Your task to perform on an android device: Open Chrome and go to settings Image 0: 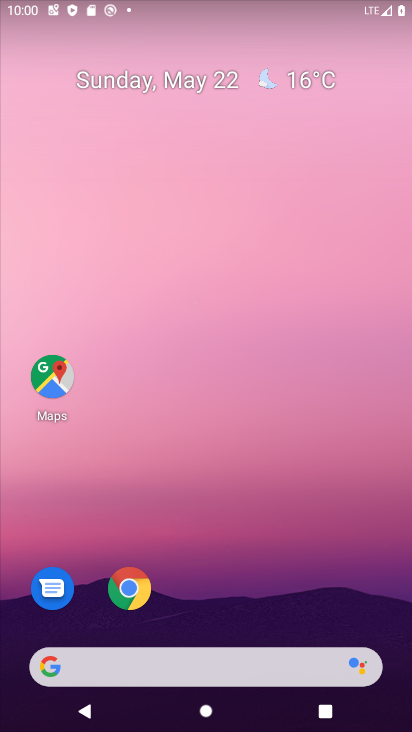
Step 0: drag from (237, 609) to (230, 213)
Your task to perform on an android device: Open Chrome and go to settings Image 1: 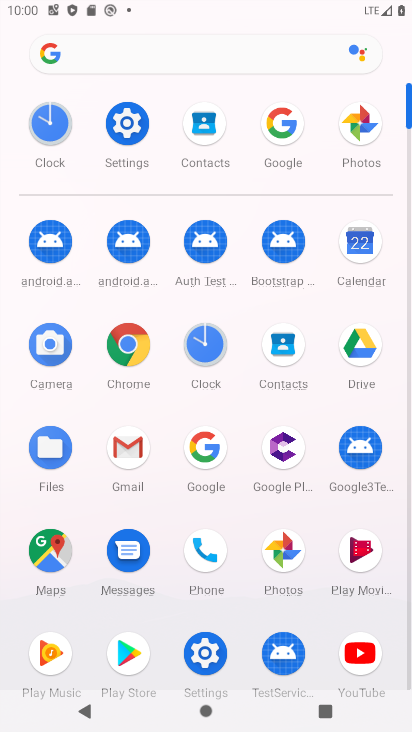
Step 1: click (131, 367)
Your task to perform on an android device: Open Chrome and go to settings Image 2: 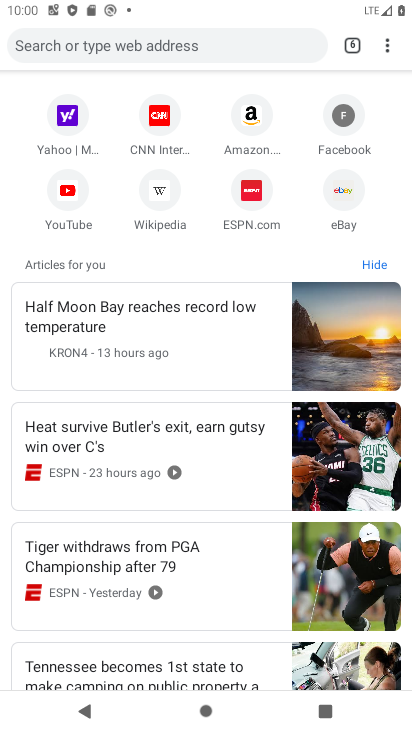
Step 2: click (386, 50)
Your task to perform on an android device: Open Chrome and go to settings Image 3: 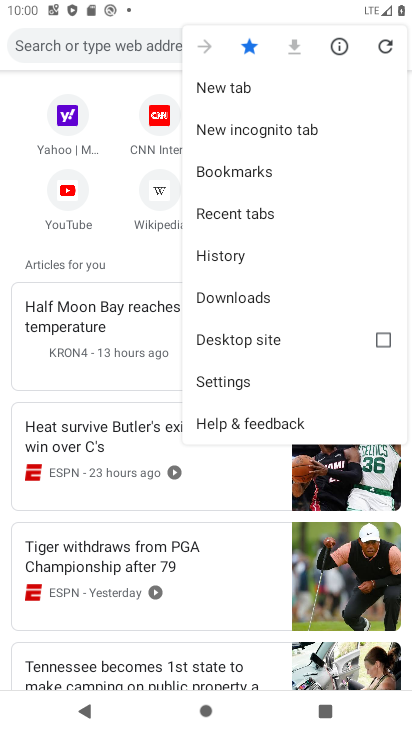
Step 3: click (219, 367)
Your task to perform on an android device: Open Chrome and go to settings Image 4: 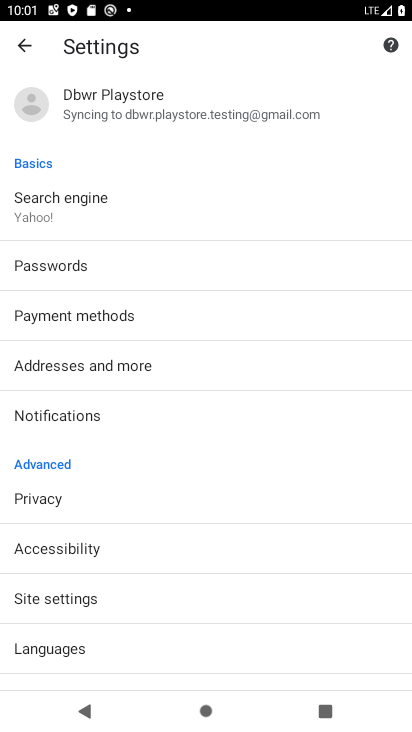
Step 4: task complete